Your task to perform on an android device: change text size in settings app Image 0: 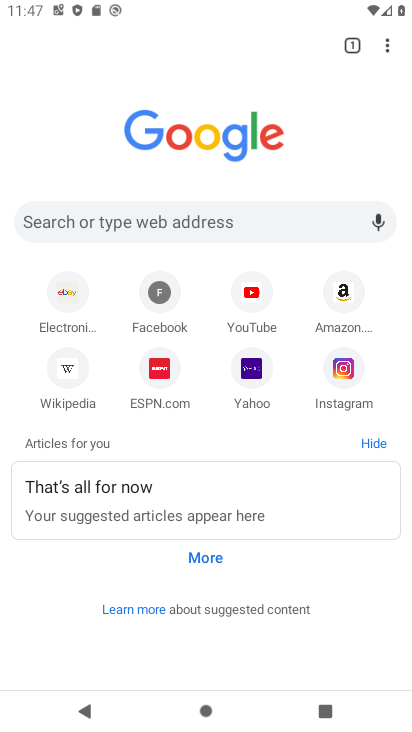
Step 0: press back button
Your task to perform on an android device: change text size in settings app Image 1: 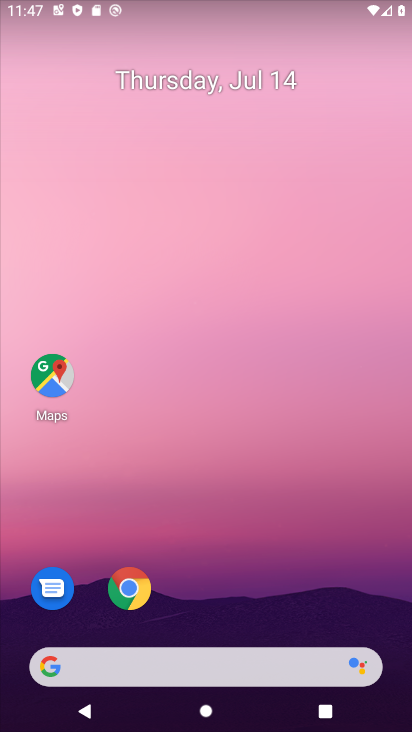
Step 1: drag from (254, 621) to (308, 2)
Your task to perform on an android device: change text size in settings app Image 2: 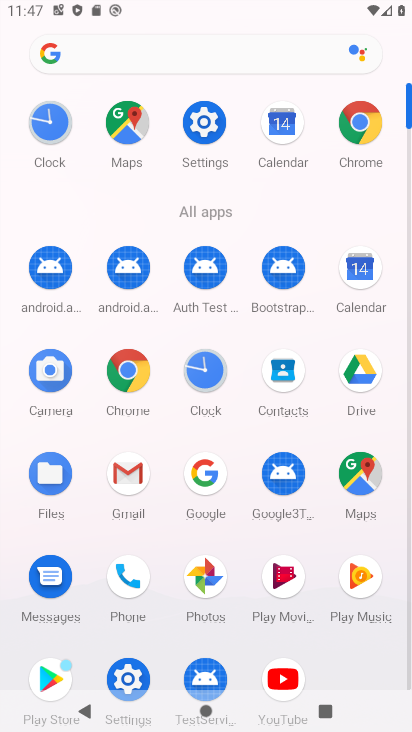
Step 2: click (214, 125)
Your task to perform on an android device: change text size in settings app Image 3: 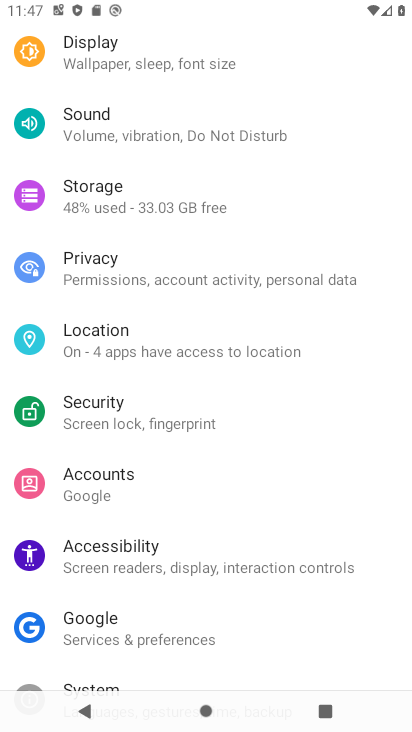
Step 3: drag from (193, 98) to (182, 615)
Your task to perform on an android device: change text size in settings app Image 4: 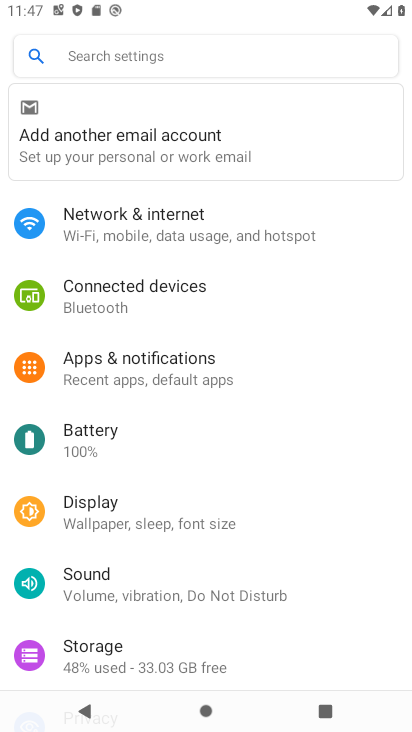
Step 4: click (142, 54)
Your task to perform on an android device: change text size in settings app Image 5: 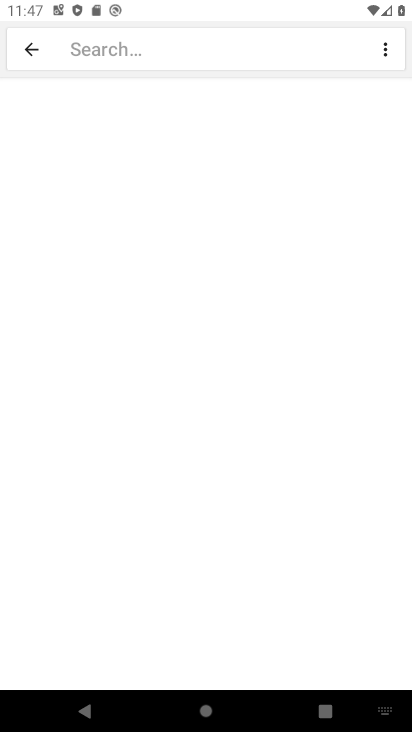
Step 5: type "text size"
Your task to perform on an android device: change text size in settings app Image 6: 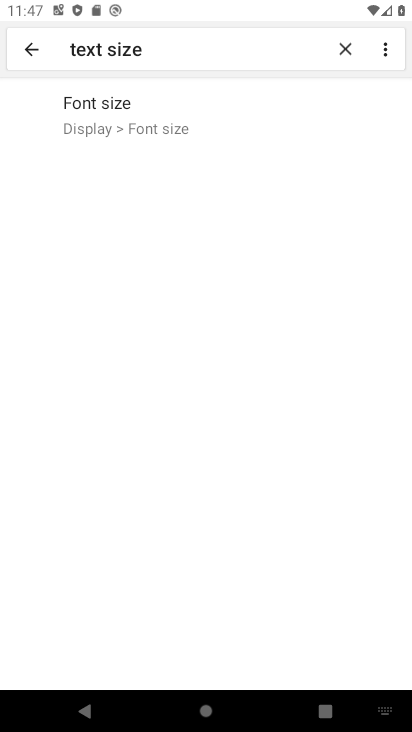
Step 6: click (98, 118)
Your task to perform on an android device: change text size in settings app Image 7: 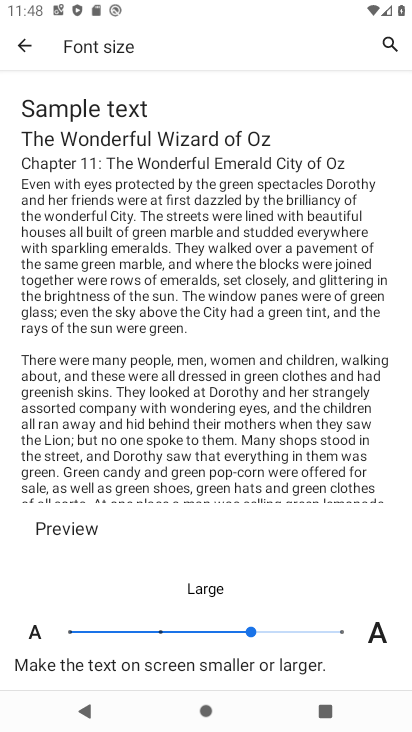
Step 7: task complete